Your task to perform on an android device: choose inbox layout in the gmail app Image 0: 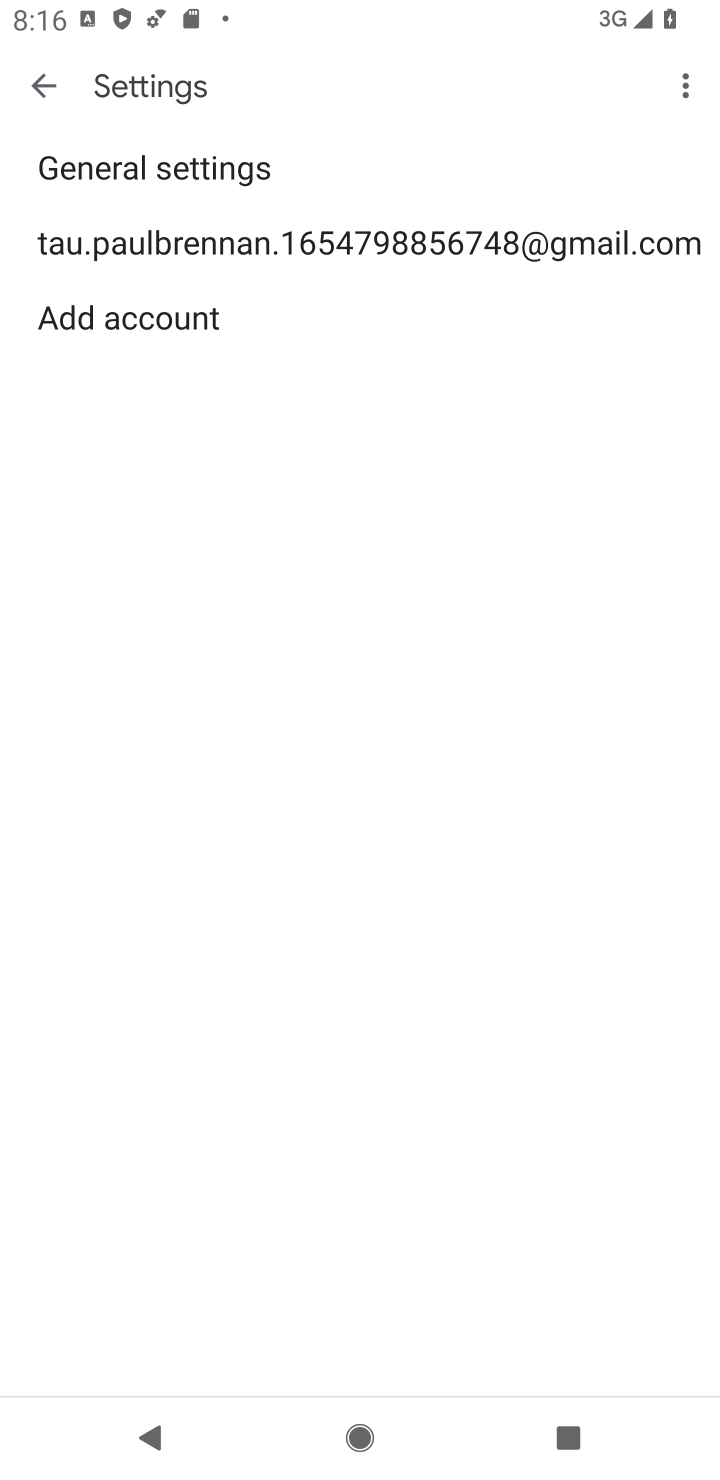
Step 0: click (348, 254)
Your task to perform on an android device: choose inbox layout in the gmail app Image 1: 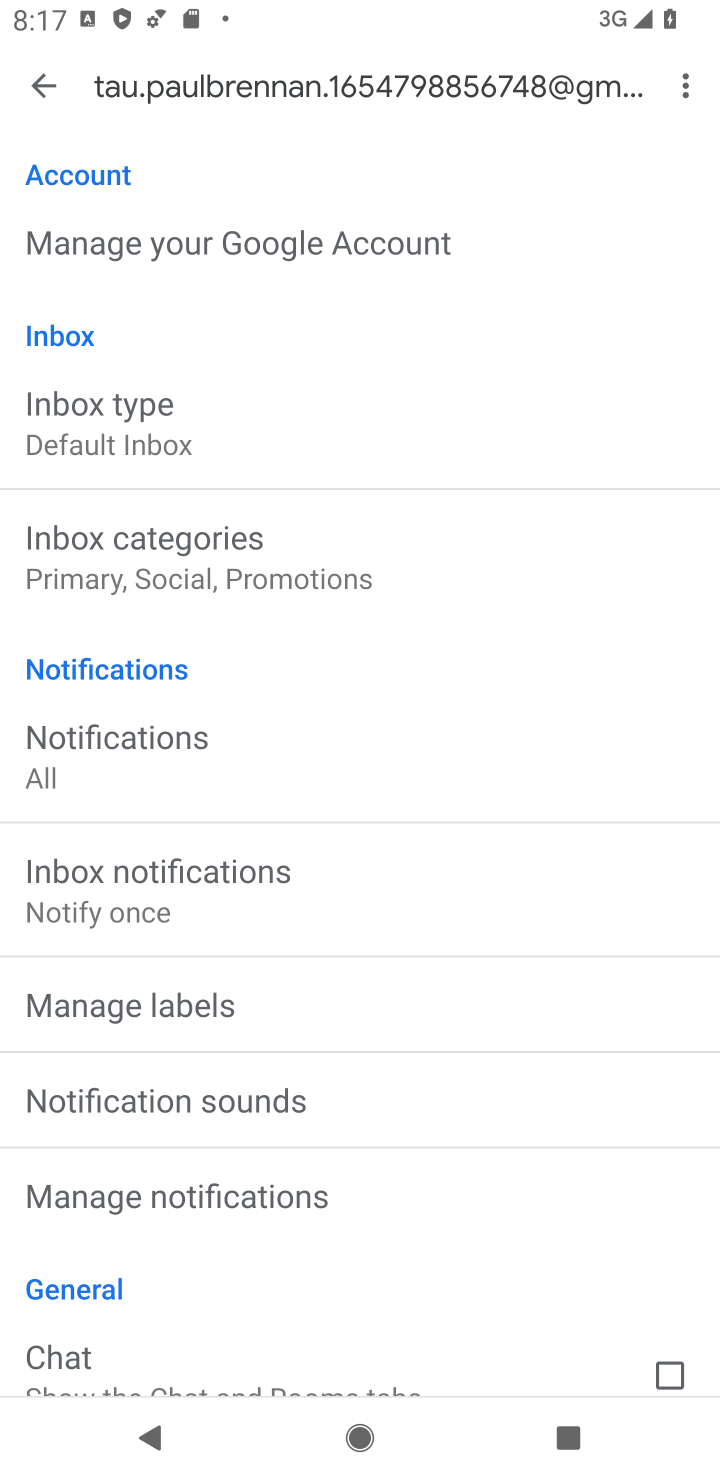
Step 1: click (118, 408)
Your task to perform on an android device: choose inbox layout in the gmail app Image 2: 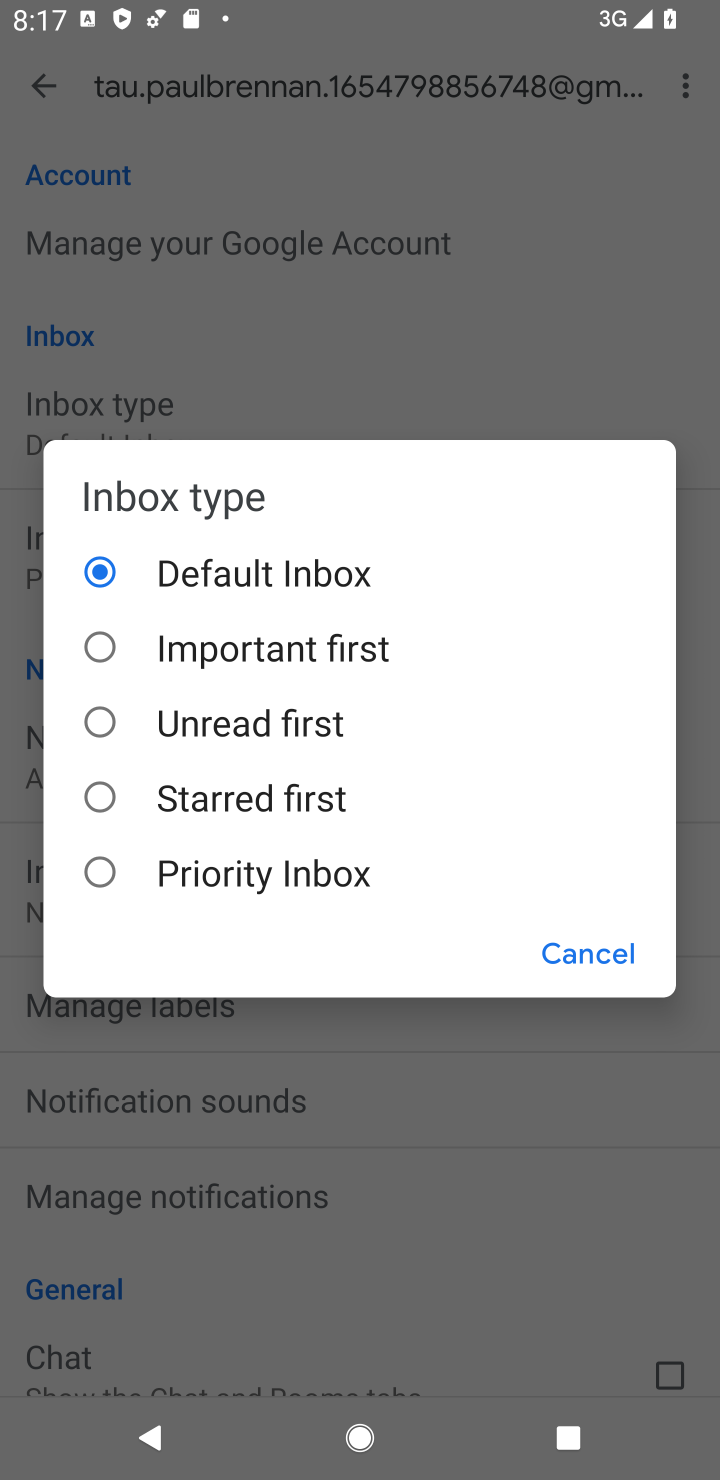
Step 2: click (92, 655)
Your task to perform on an android device: choose inbox layout in the gmail app Image 3: 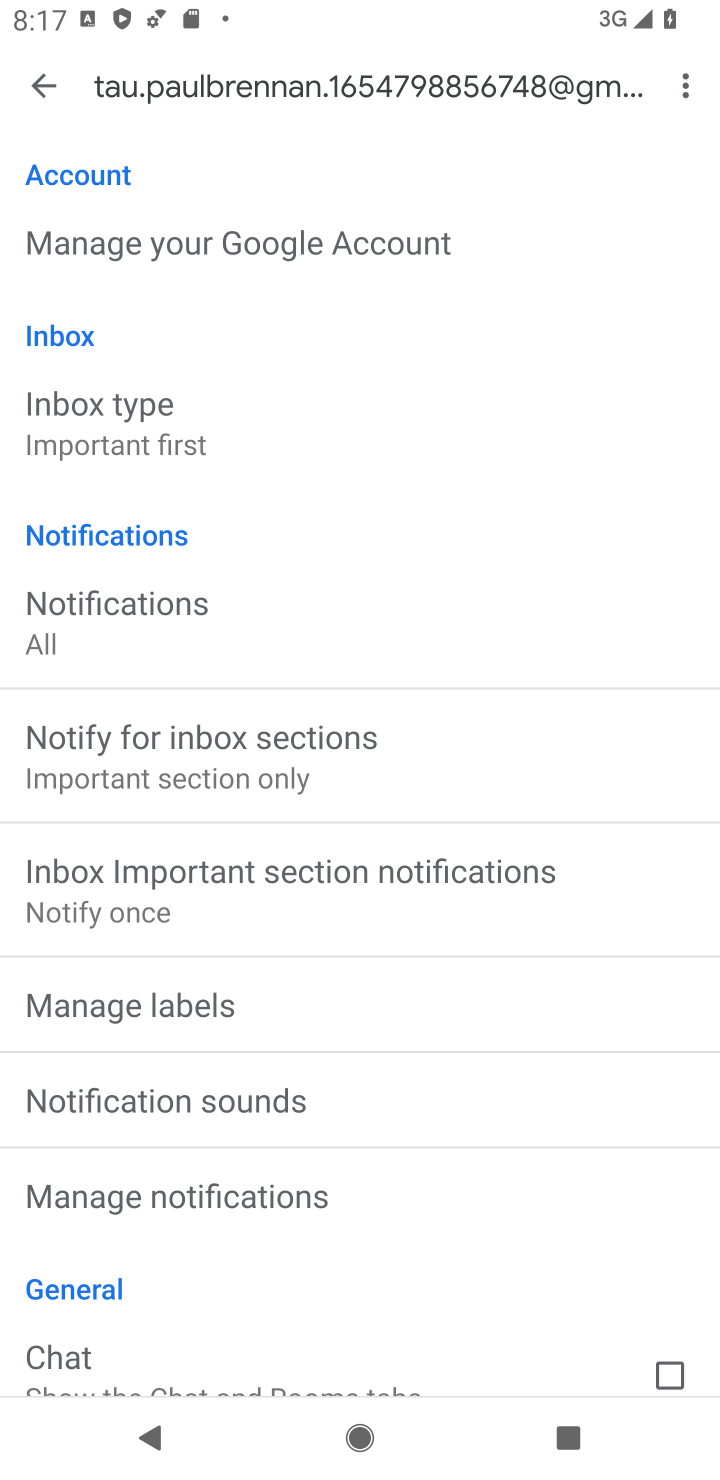
Step 3: task complete